Your task to perform on an android device: Open settings on Google Maps Image 0: 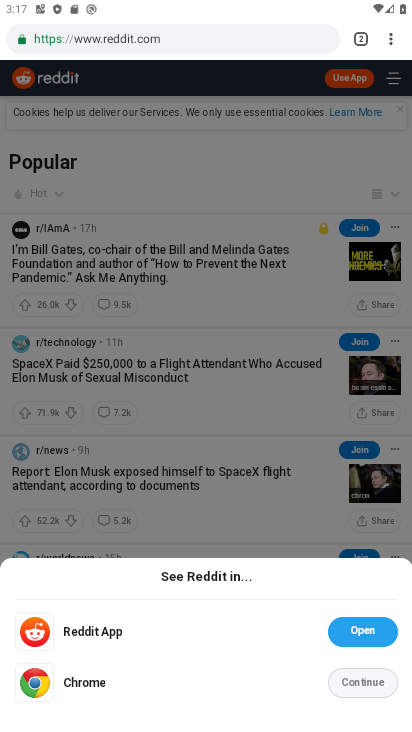
Step 0: press home button
Your task to perform on an android device: Open settings on Google Maps Image 1: 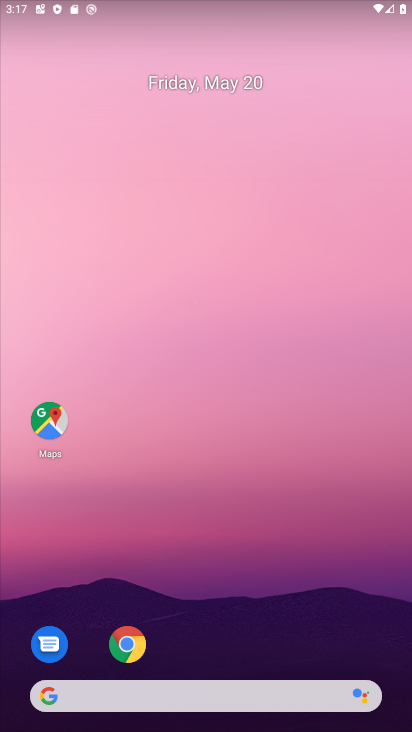
Step 1: click (69, 432)
Your task to perform on an android device: Open settings on Google Maps Image 2: 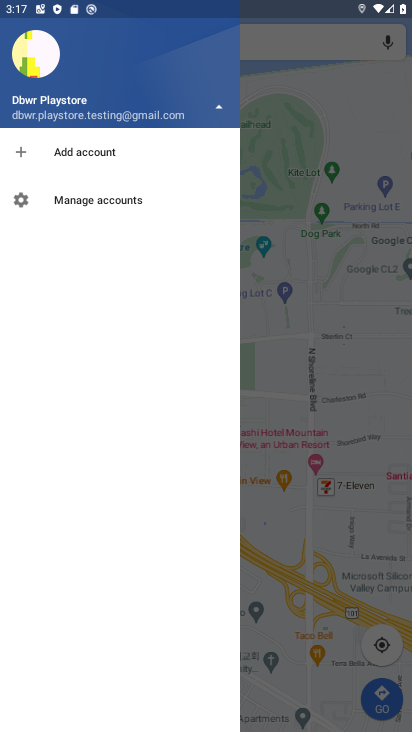
Step 2: click (26, 113)
Your task to perform on an android device: Open settings on Google Maps Image 3: 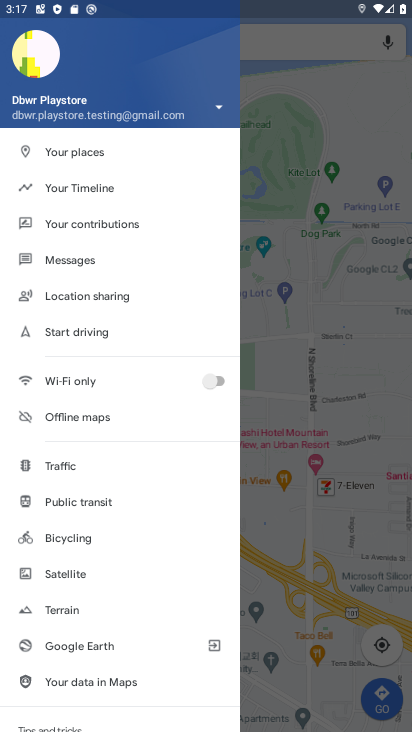
Step 3: drag from (68, 658) to (65, 324)
Your task to perform on an android device: Open settings on Google Maps Image 4: 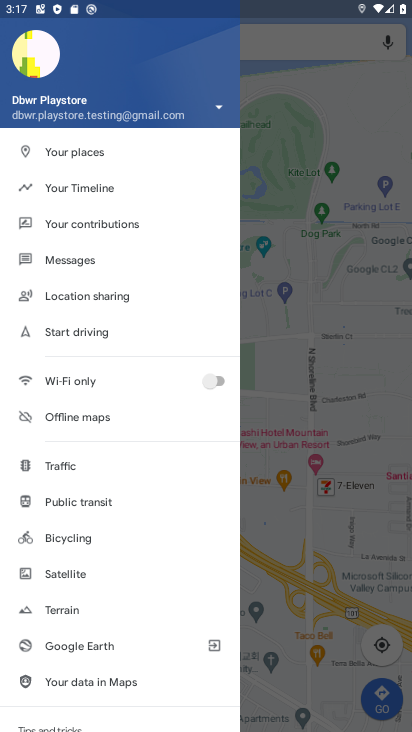
Step 4: drag from (71, 568) to (77, 368)
Your task to perform on an android device: Open settings on Google Maps Image 5: 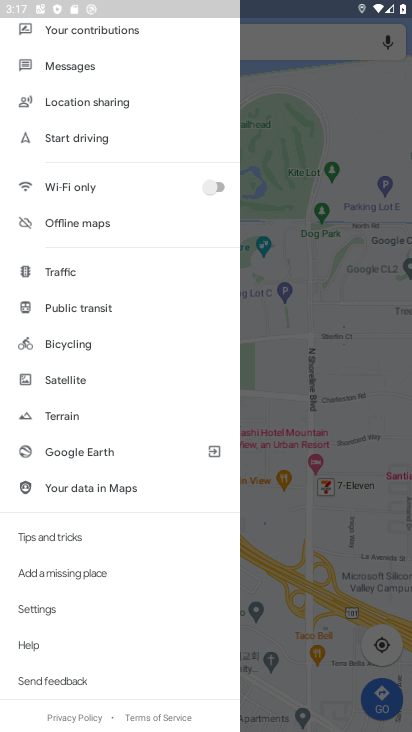
Step 5: click (49, 617)
Your task to perform on an android device: Open settings on Google Maps Image 6: 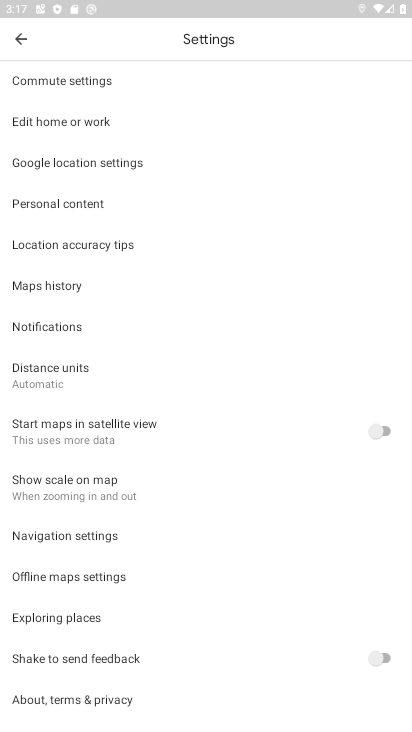
Step 6: task complete